Your task to perform on an android device: When is my next meeting? Image 0: 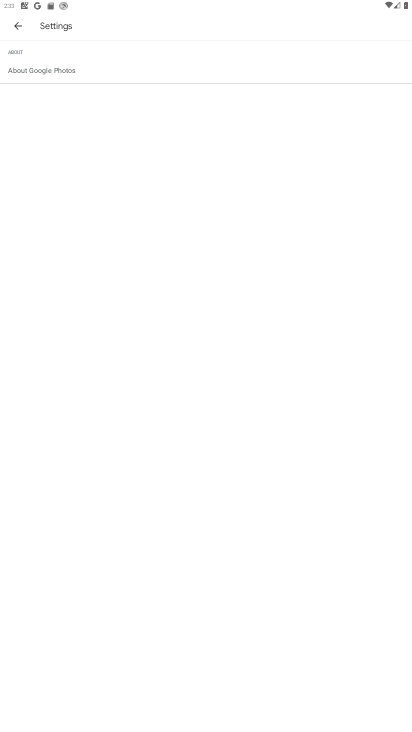
Step 0: click (11, 22)
Your task to perform on an android device: When is my next meeting? Image 1: 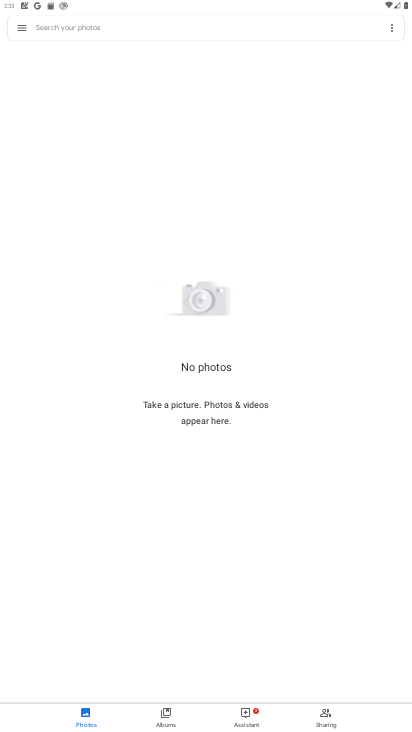
Step 1: press home button
Your task to perform on an android device: When is my next meeting? Image 2: 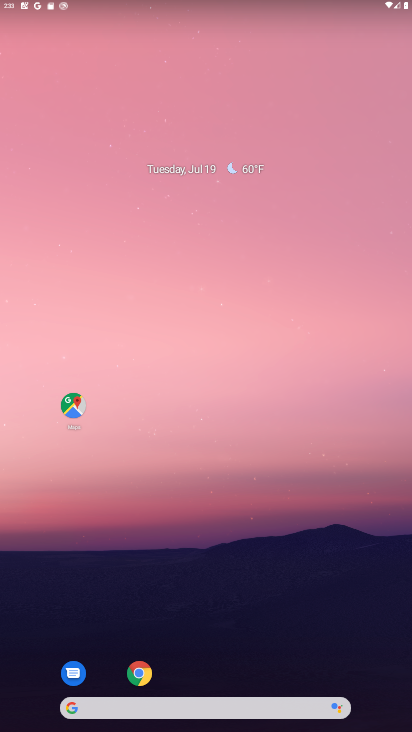
Step 2: drag from (199, 720) to (236, 151)
Your task to perform on an android device: When is my next meeting? Image 3: 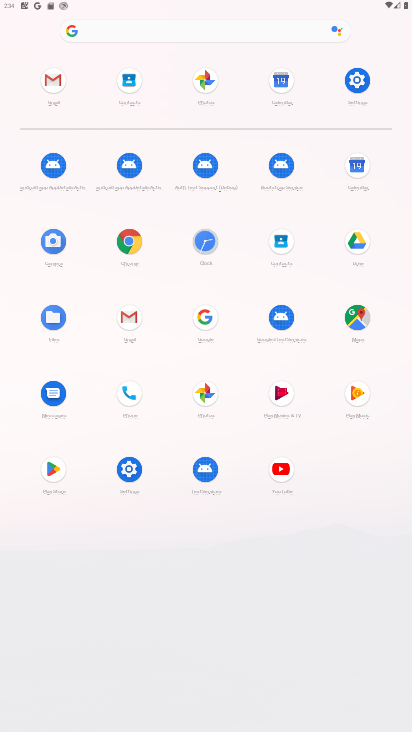
Step 3: click (357, 168)
Your task to perform on an android device: When is my next meeting? Image 4: 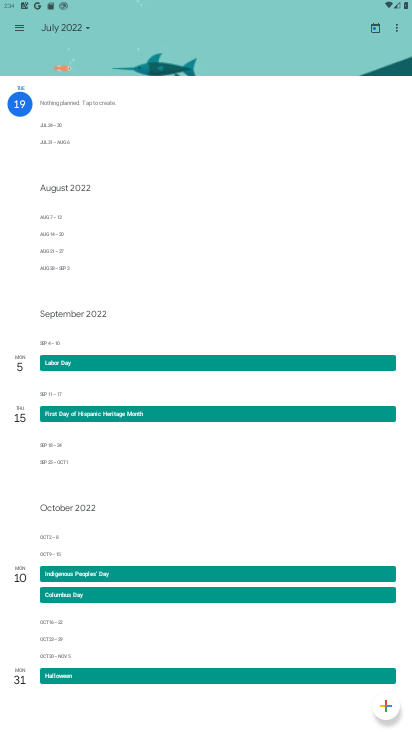
Step 4: task complete